Your task to perform on an android device: Add "apple airpods pro" to the cart on costco, then select checkout. Image 0: 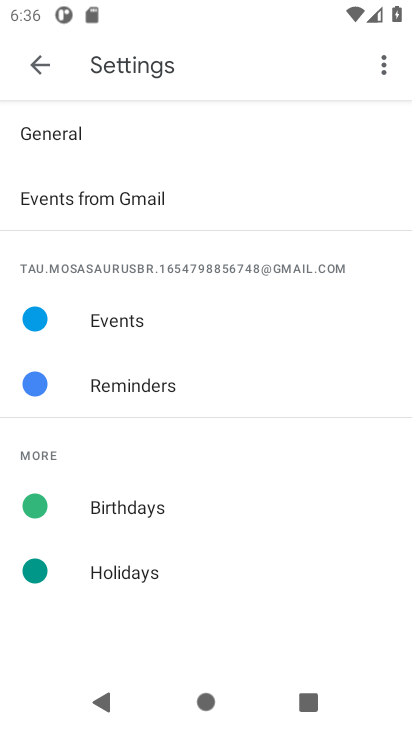
Step 0: press home button
Your task to perform on an android device: Add "apple airpods pro" to the cart on costco, then select checkout. Image 1: 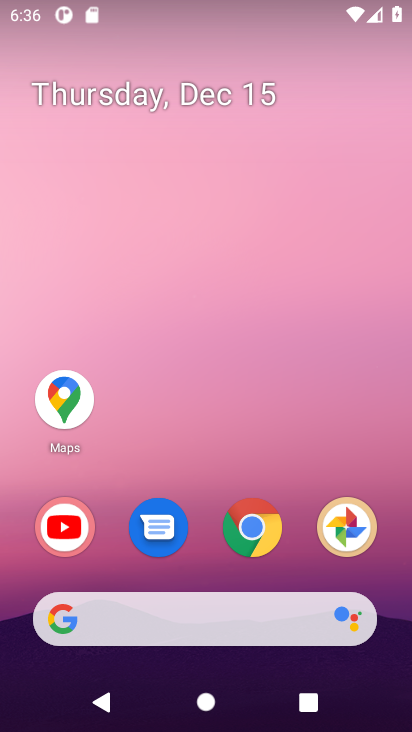
Step 1: click (222, 601)
Your task to perform on an android device: Add "apple airpods pro" to the cart on costco, then select checkout. Image 2: 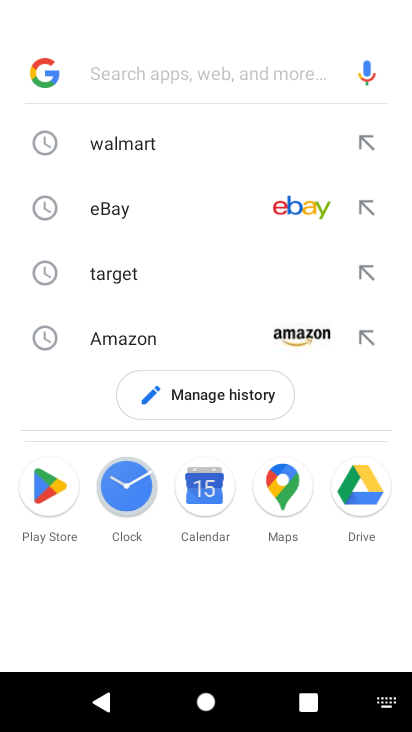
Step 2: type "costco"
Your task to perform on an android device: Add "apple airpods pro" to the cart on costco, then select checkout. Image 3: 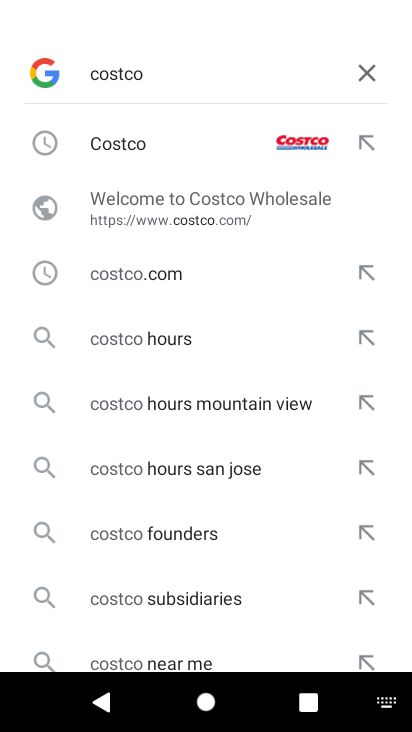
Step 3: click (125, 131)
Your task to perform on an android device: Add "apple airpods pro" to the cart on costco, then select checkout. Image 4: 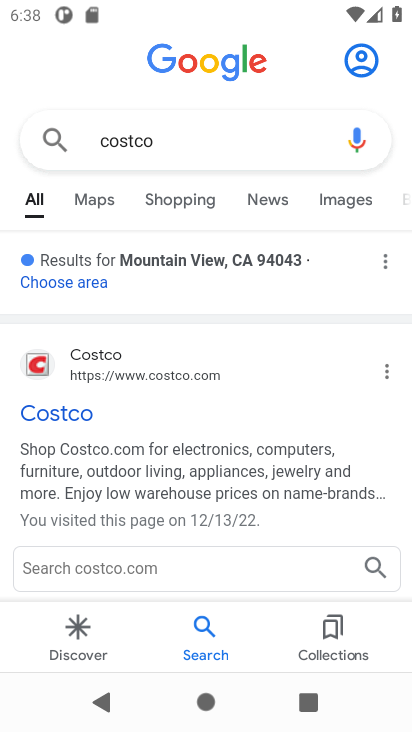
Step 4: click (83, 400)
Your task to perform on an android device: Add "apple airpods pro" to the cart on costco, then select checkout. Image 5: 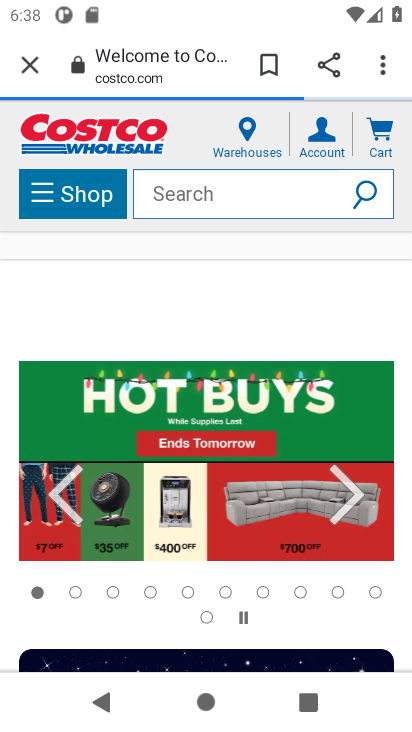
Step 5: click (186, 205)
Your task to perform on an android device: Add "apple airpods pro" to the cart on costco, then select checkout. Image 6: 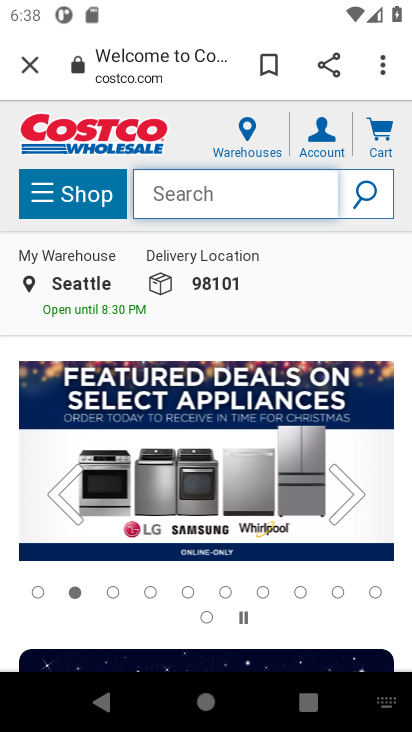
Step 6: type "apple airpod"
Your task to perform on an android device: Add "apple airpods pro" to the cart on costco, then select checkout. Image 7: 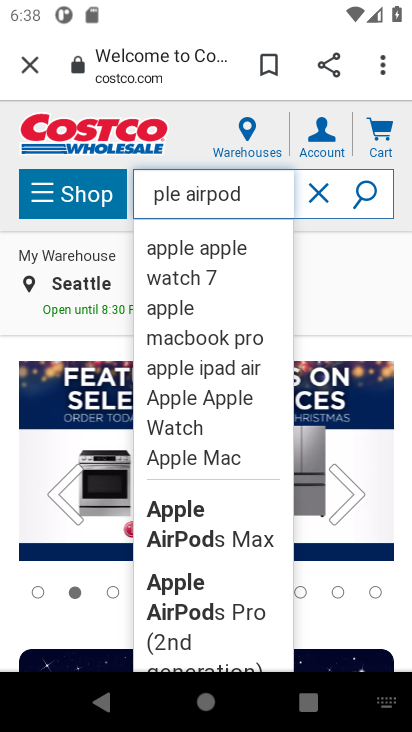
Step 7: click (243, 623)
Your task to perform on an android device: Add "apple airpods pro" to the cart on costco, then select checkout. Image 8: 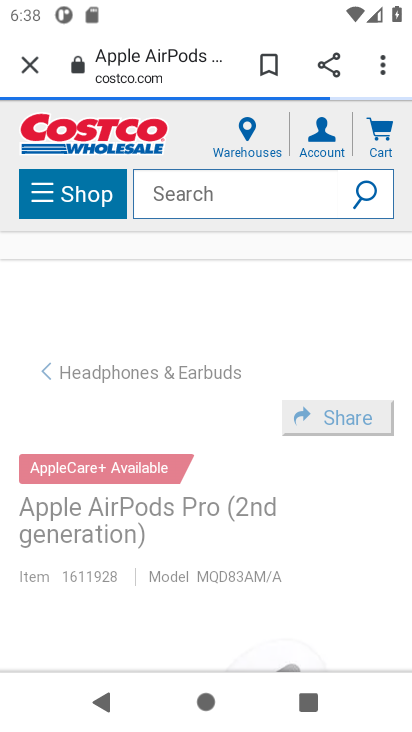
Step 8: drag from (228, 562) to (268, 277)
Your task to perform on an android device: Add "apple airpods pro" to the cart on costco, then select checkout. Image 9: 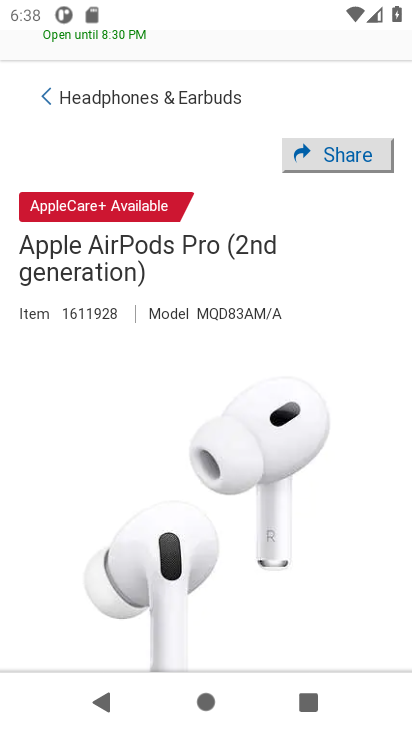
Step 9: drag from (190, 546) to (294, 84)
Your task to perform on an android device: Add "apple airpods pro" to the cart on costco, then select checkout. Image 10: 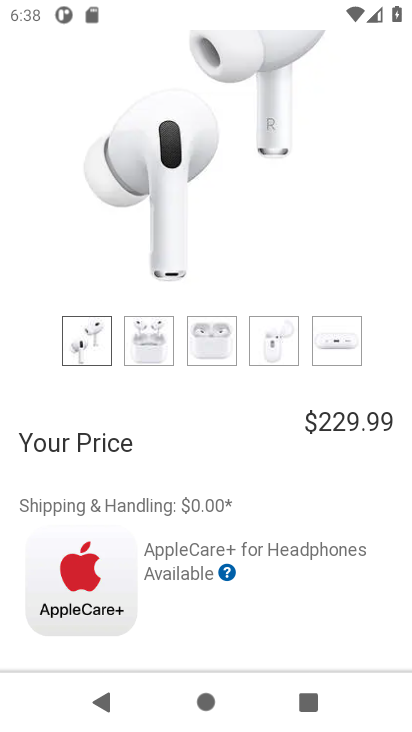
Step 10: drag from (273, 586) to (332, 285)
Your task to perform on an android device: Add "apple airpods pro" to the cart on costco, then select checkout. Image 11: 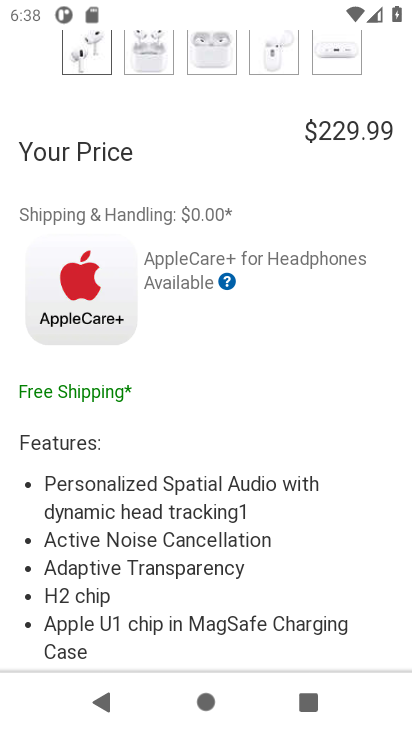
Step 11: drag from (292, 621) to (322, 390)
Your task to perform on an android device: Add "apple airpods pro" to the cart on costco, then select checkout. Image 12: 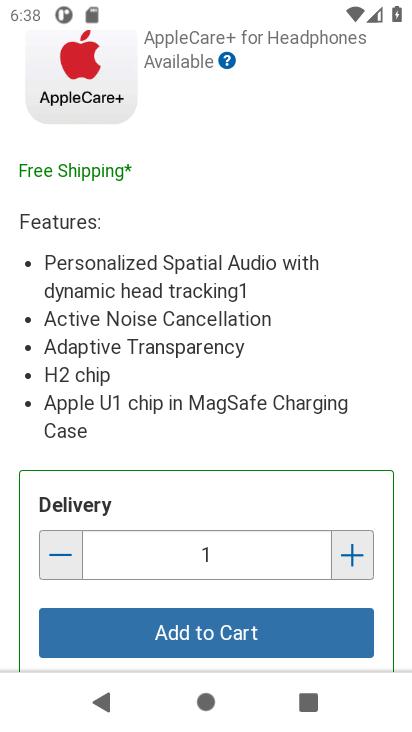
Step 12: click (268, 623)
Your task to perform on an android device: Add "apple airpods pro" to the cart on costco, then select checkout. Image 13: 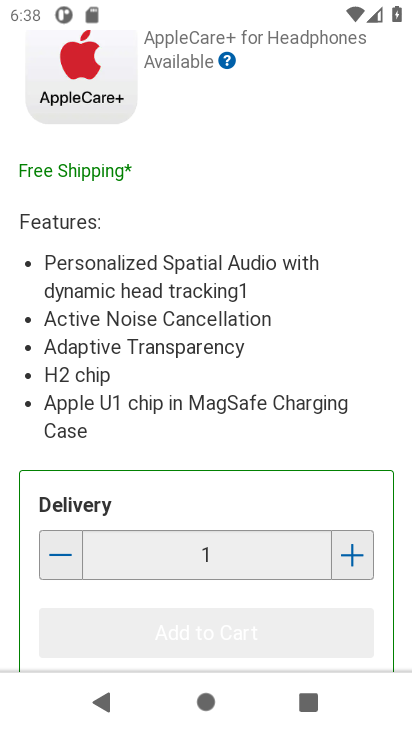
Step 13: task complete